Your task to perform on an android device: refresh tabs in the chrome app Image 0: 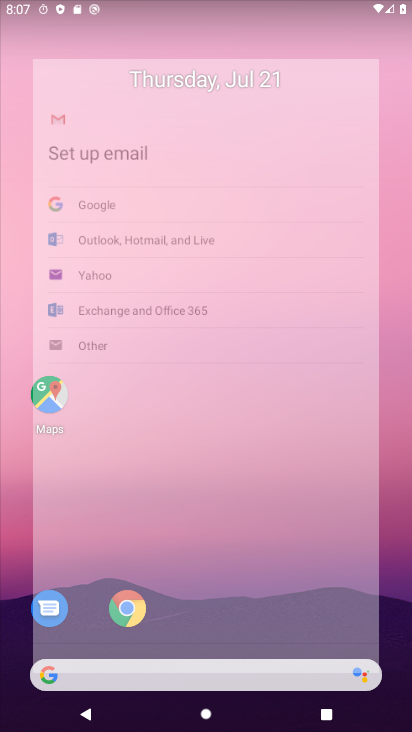
Step 0: drag from (290, 656) to (277, 253)
Your task to perform on an android device: refresh tabs in the chrome app Image 1: 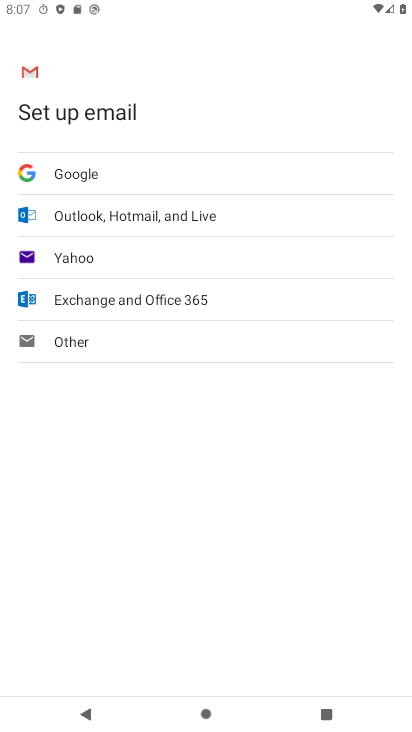
Step 1: press home button
Your task to perform on an android device: refresh tabs in the chrome app Image 2: 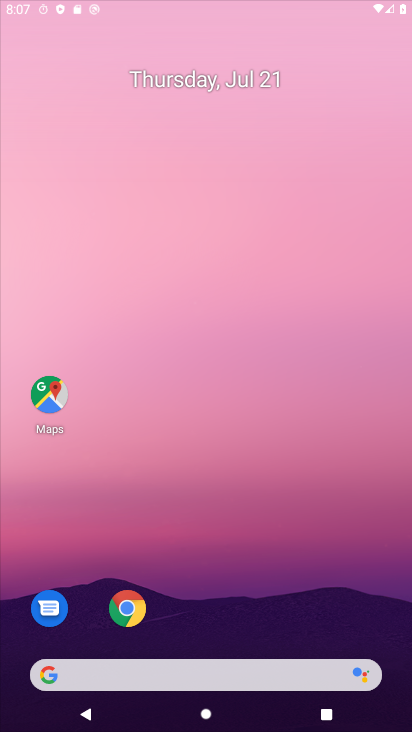
Step 2: drag from (189, 651) to (201, 690)
Your task to perform on an android device: refresh tabs in the chrome app Image 3: 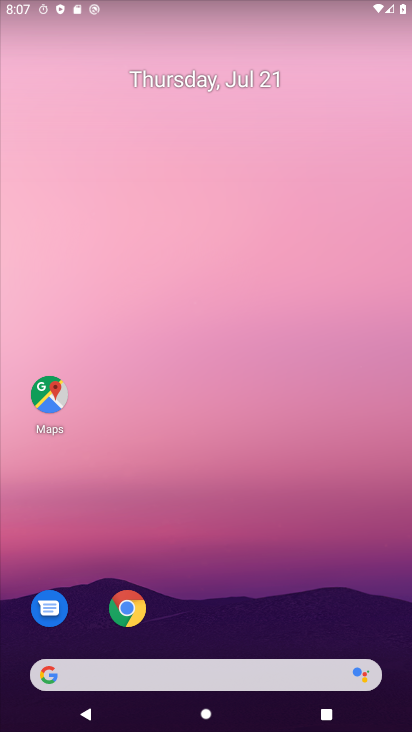
Step 3: click (128, 623)
Your task to perform on an android device: refresh tabs in the chrome app Image 4: 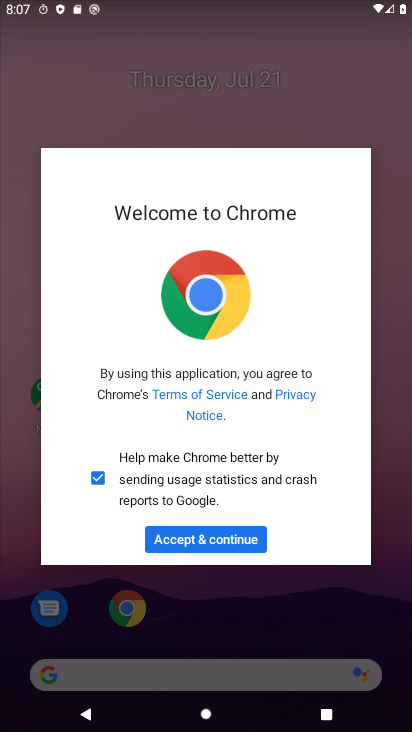
Step 4: click (205, 549)
Your task to perform on an android device: refresh tabs in the chrome app Image 5: 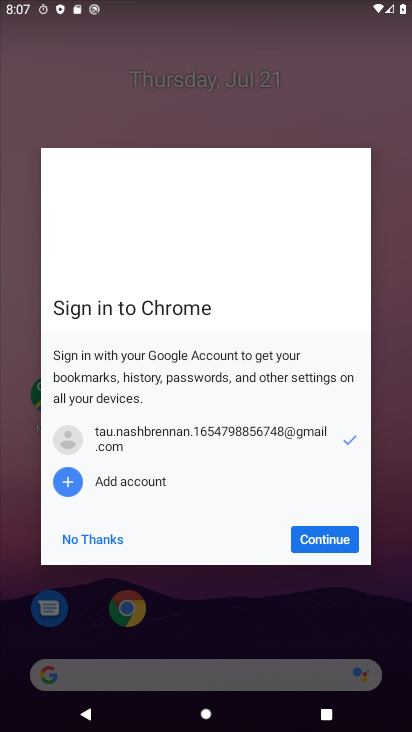
Step 5: click (326, 546)
Your task to perform on an android device: refresh tabs in the chrome app Image 6: 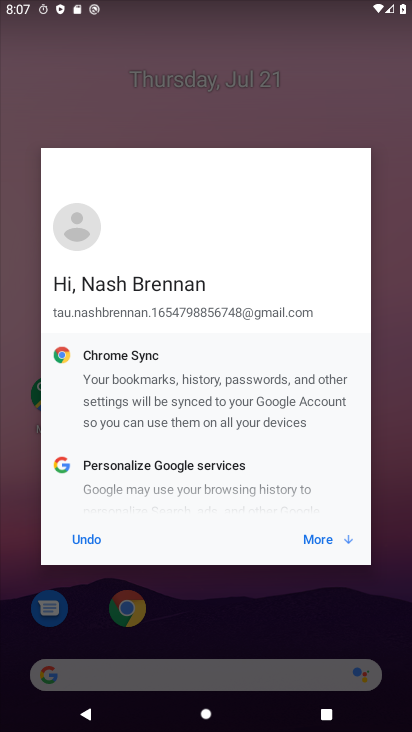
Step 6: click (326, 546)
Your task to perform on an android device: refresh tabs in the chrome app Image 7: 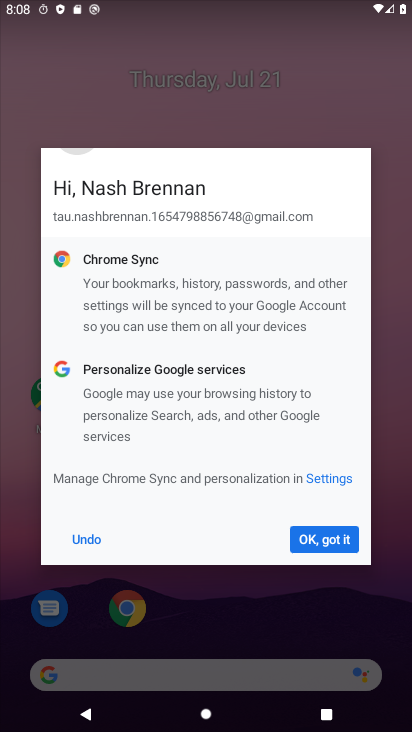
Step 7: click (326, 546)
Your task to perform on an android device: refresh tabs in the chrome app Image 8: 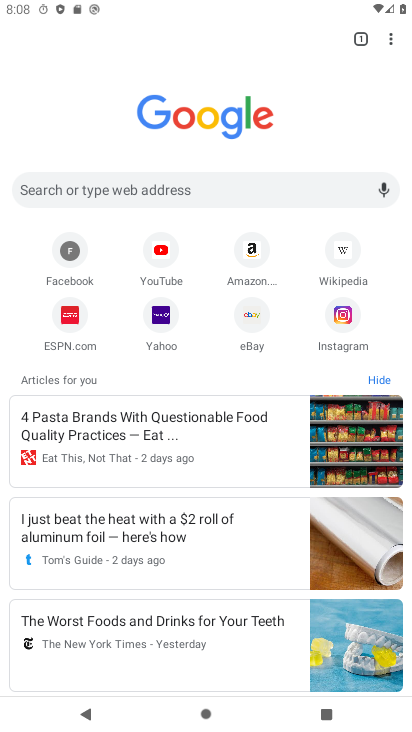
Step 8: click (391, 39)
Your task to perform on an android device: refresh tabs in the chrome app Image 9: 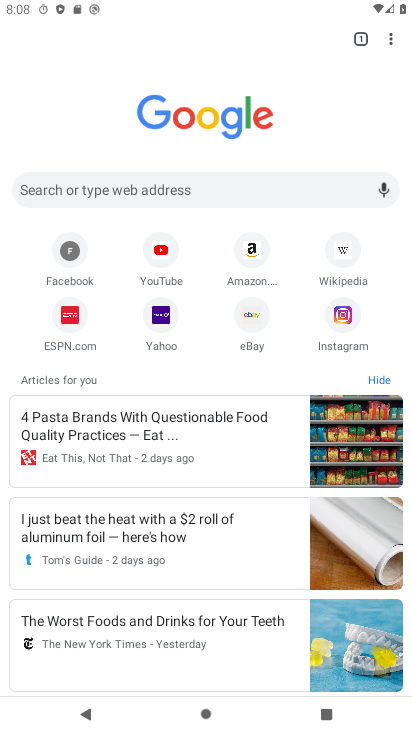
Step 9: click (391, 39)
Your task to perform on an android device: refresh tabs in the chrome app Image 10: 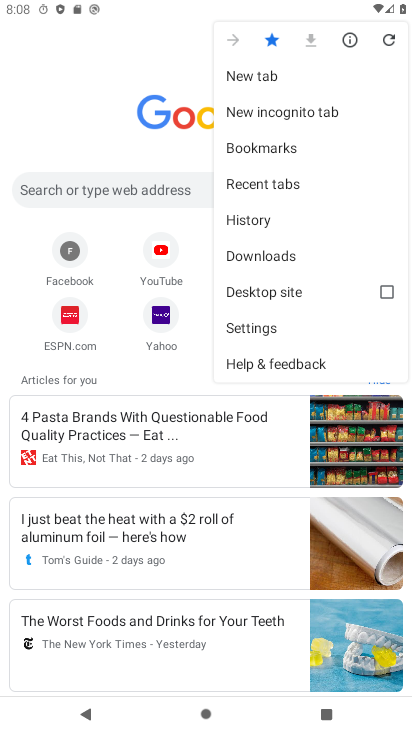
Step 10: click (391, 39)
Your task to perform on an android device: refresh tabs in the chrome app Image 11: 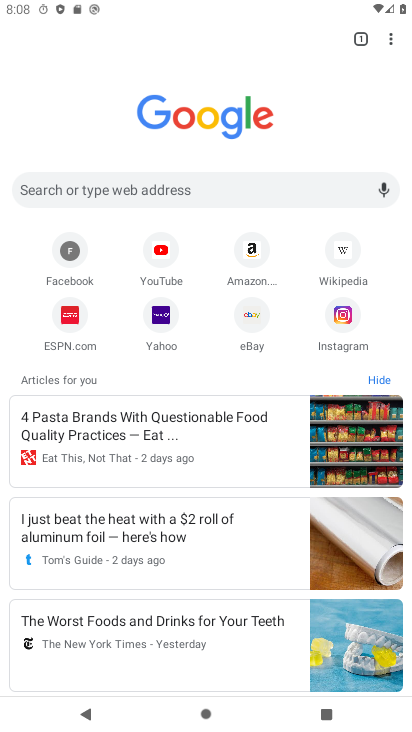
Step 11: task complete